Your task to perform on an android device: allow cookies in the chrome app Image 0: 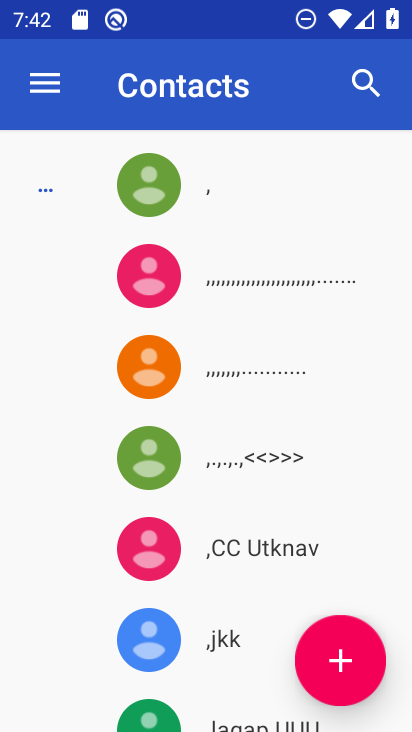
Step 0: press home button
Your task to perform on an android device: allow cookies in the chrome app Image 1: 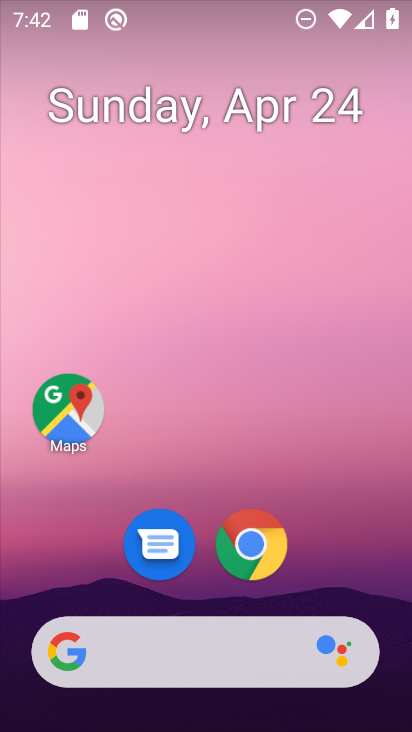
Step 1: drag from (205, 645) to (311, 136)
Your task to perform on an android device: allow cookies in the chrome app Image 2: 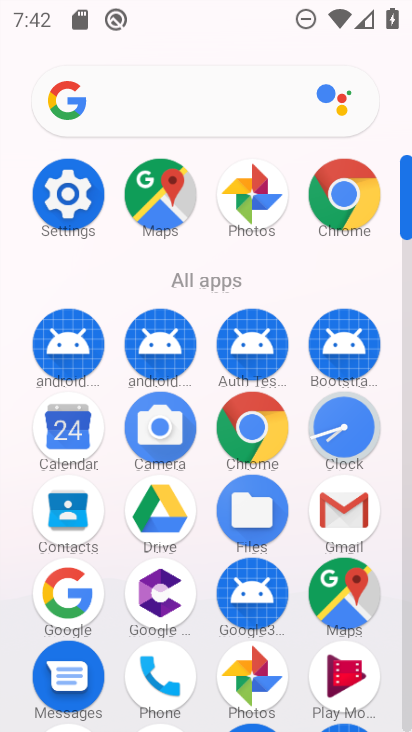
Step 2: click (342, 205)
Your task to perform on an android device: allow cookies in the chrome app Image 3: 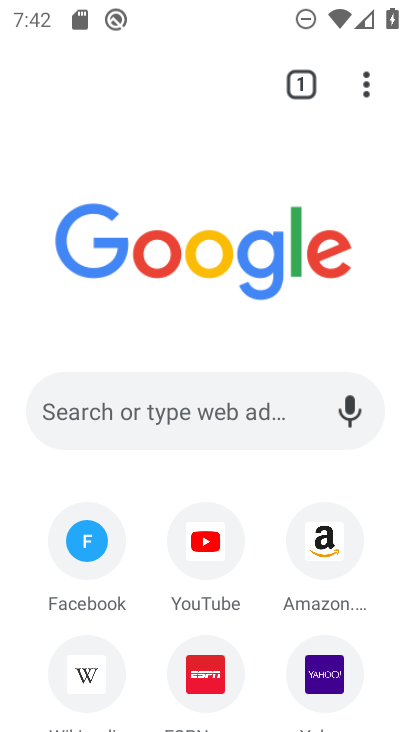
Step 3: drag from (366, 85) to (118, 591)
Your task to perform on an android device: allow cookies in the chrome app Image 4: 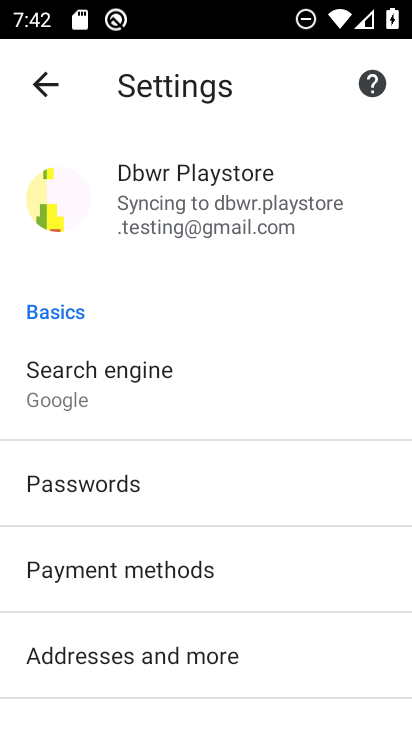
Step 4: drag from (125, 618) to (303, 182)
Your task to perform on an android device: allow cookies in the chrome app Image 5: 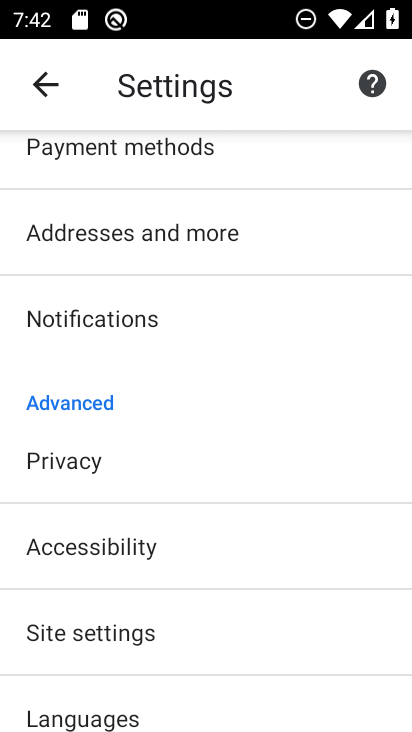
Step 5: click (86, 636)
Your task to perform on an android device: allow cookies in the chrome app Image 6: 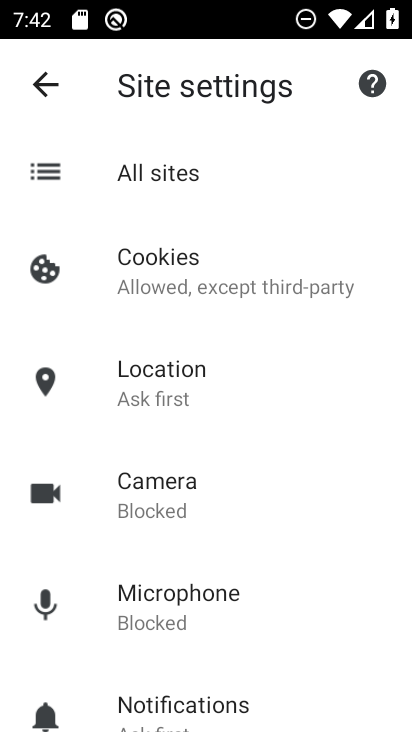
Step 6: click (223, 278)
Your task to perform on an android device: allow cookies in the chrome app Image 7: 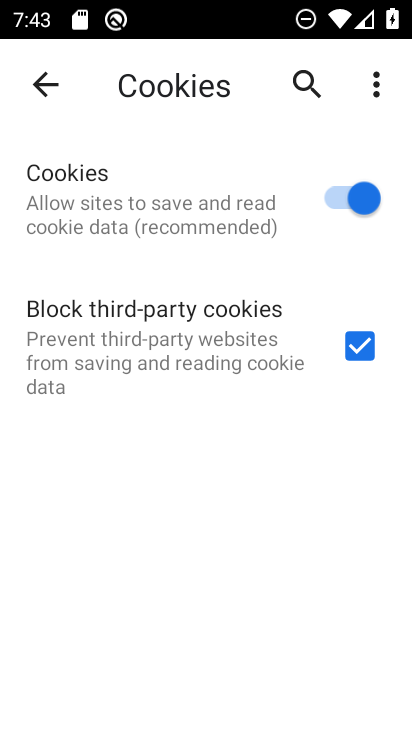
Step 7: task complete